Your task to perform on an android device: Open calendar and show me the fourth week of next month Image 0: 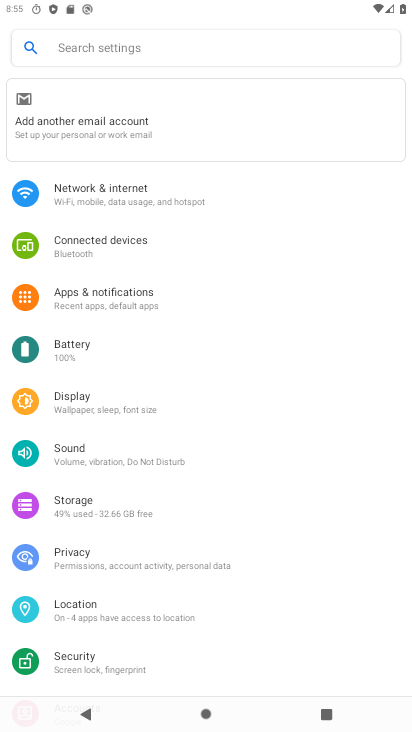
Step 0: press home button
Your task to perform on an android device: Open calendar and show me the fourth week of next month Image 1: 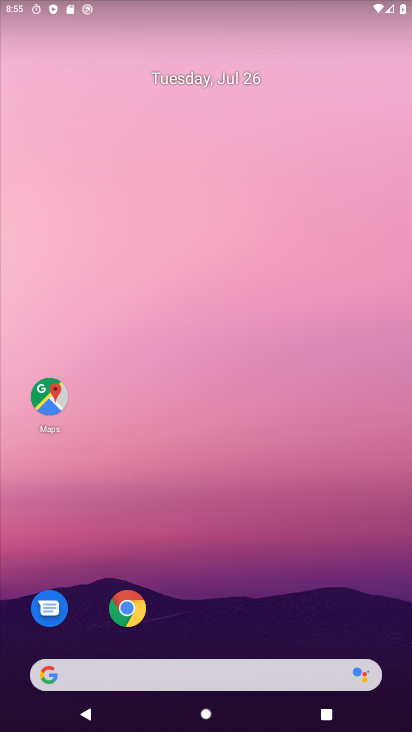
Step 1: drag from (281, 617) to (210, 214)
Your task to perform on an android device: Open calendar and show me the fourth week of next month Image 2: 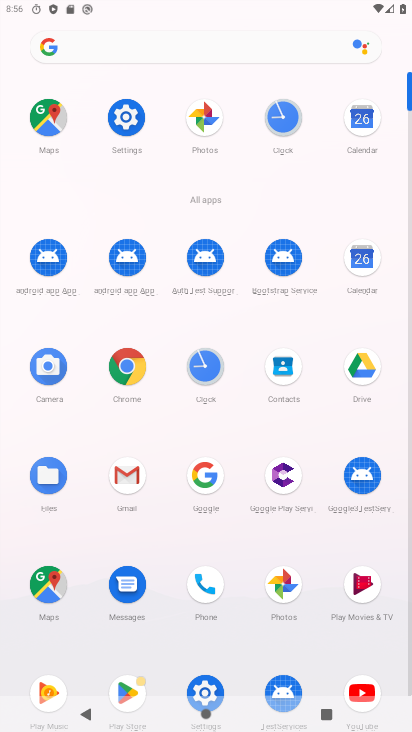
Step 2: click (364, 119)
Your task to perform on an android device: Open calendar and show me the fourth week of next month Image 3: 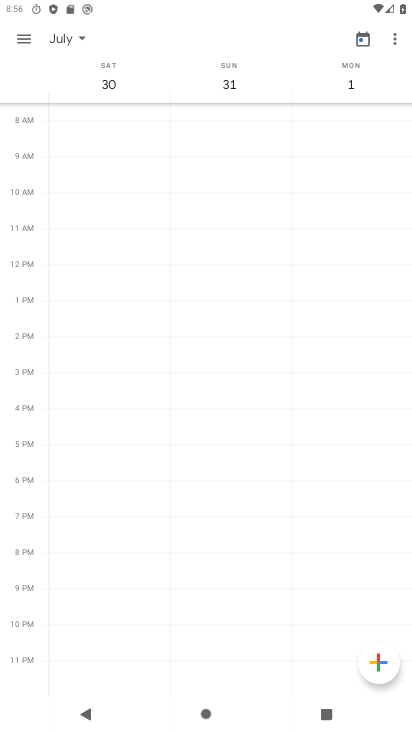
Step 3: click (26, 46)
Your task to perform on an android device: Open calendar and show me the fourth week of next month Image 4: 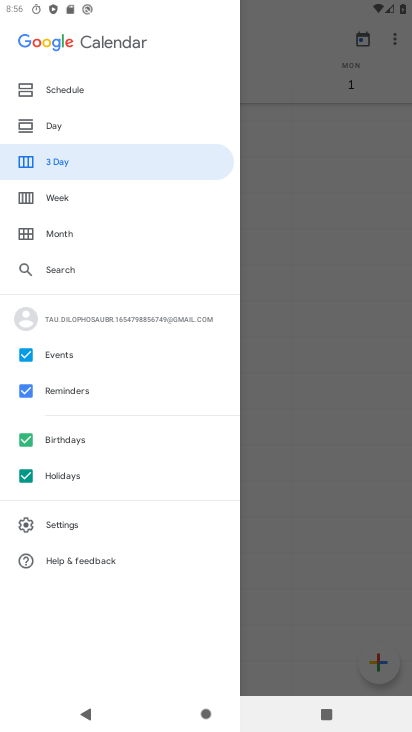
Step 4: click (80, 192)
Your task to perform on an android device: Open calendar and show me the fourth week of next month Image 5: 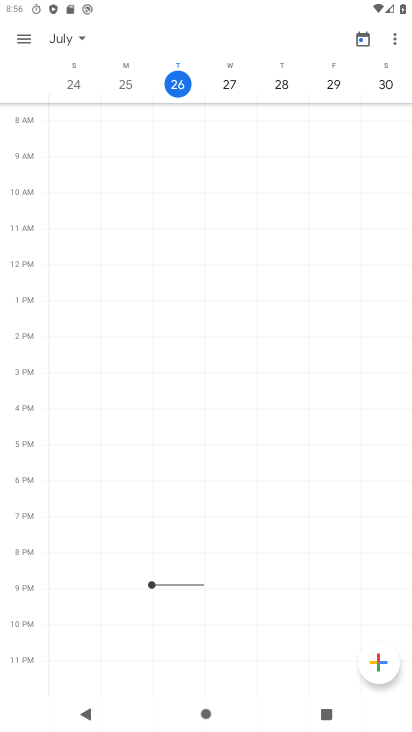
Step 5: click (79, 37)
Your task to perform on an android device: Open calendar and show me the fourth week of next month Image 6: 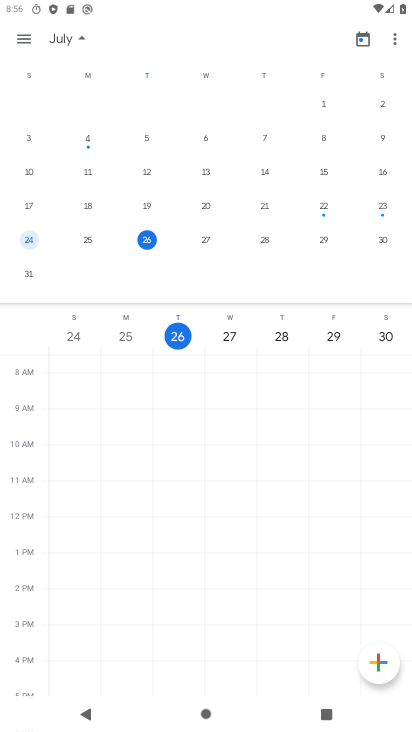
Step 6: drag from (330, 219) to (0, 223)
Your task to perform on an android device: Open calendar and show me the fourth week of next month Image 7: 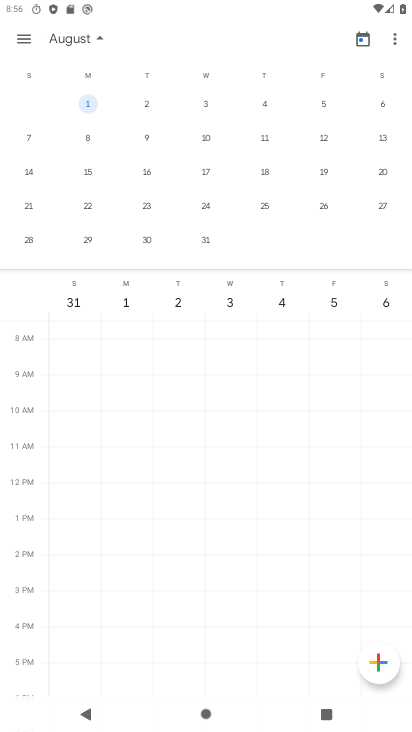
Step 7: click (146, 207)
Your task to perform on an android device: Open calendar and show me the fourth week of next month Image 8: 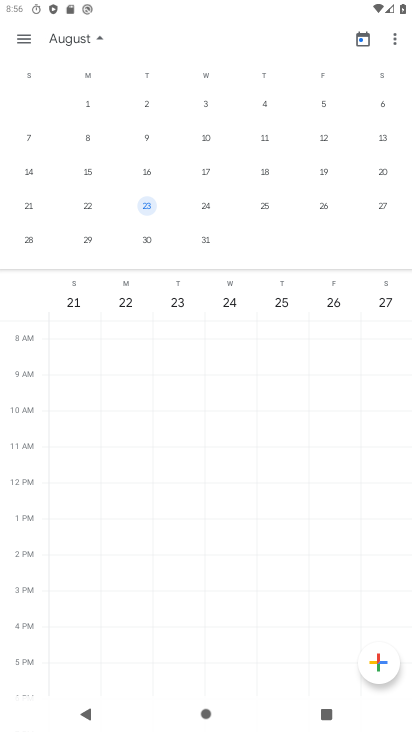
Step 8: task complete